Your task to perform on an android device: star an email in the gmail app Image 0: 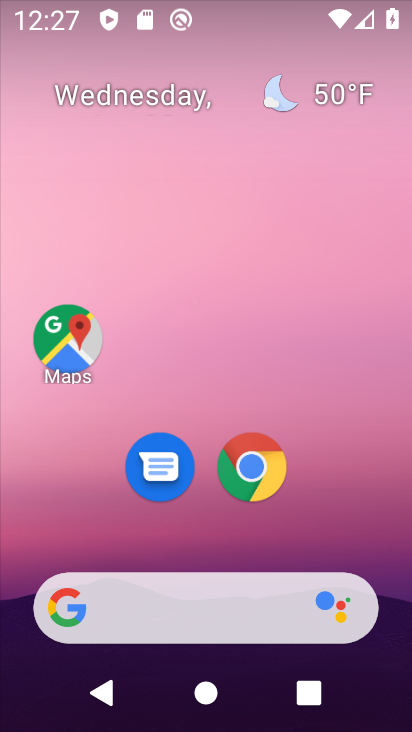
Step 0: drag from (209, 470) to (248, 94)
Your task to perform on an android device: star an email in the gmail app Image 1: 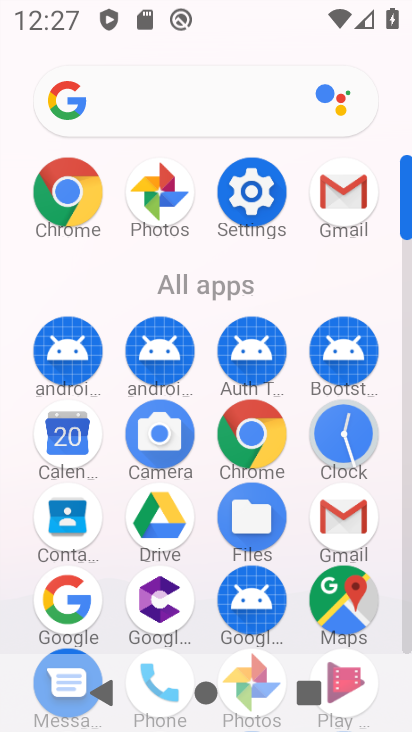
Step 1: click (333, 213)
Your task to perform on an android device: star an email in the gmail app Image 2: 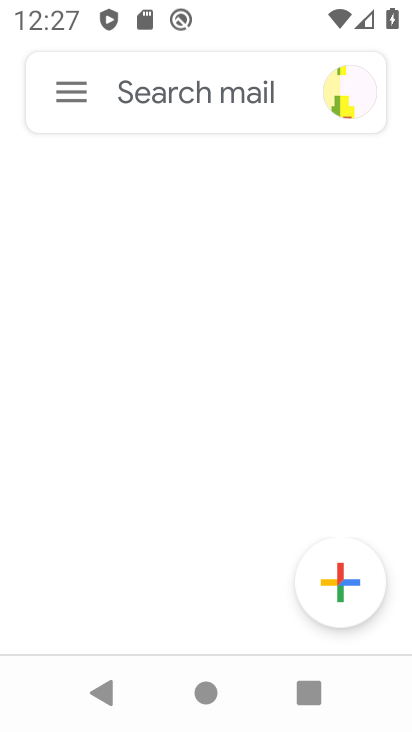
Step 2: task complete